Your task to perform on an android device: Play the last video I watched on Youtube Image 0: 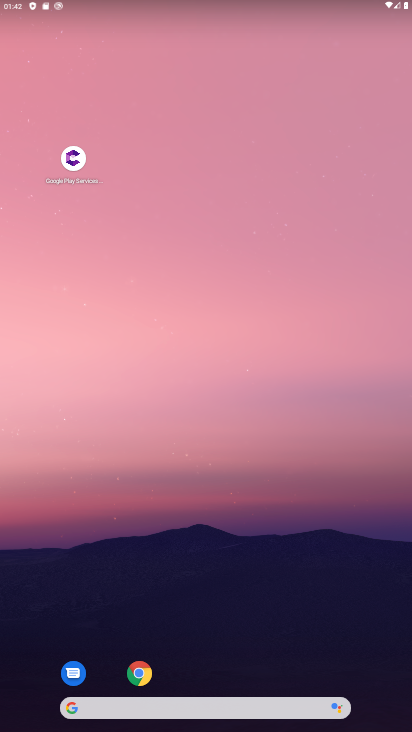
Step 0: drag from (223, 599) to (223, 135)
Your task to perform on an android device: Play the last video I watched on Youtube Image 1: 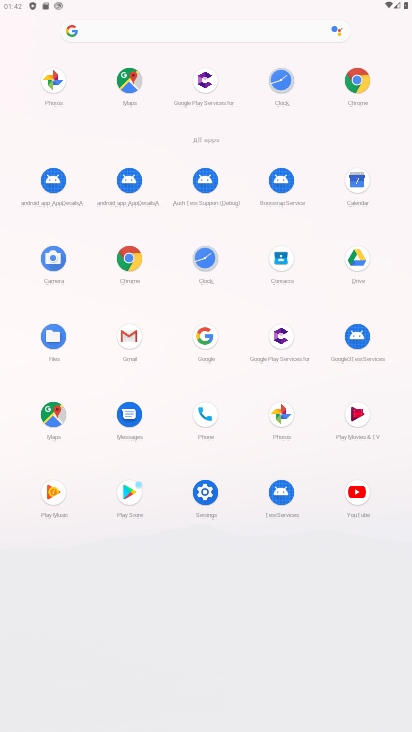
Step 1: click (347, 502)
Your task to perform on an android device: Play the last video I watched on Youtube Image 2: 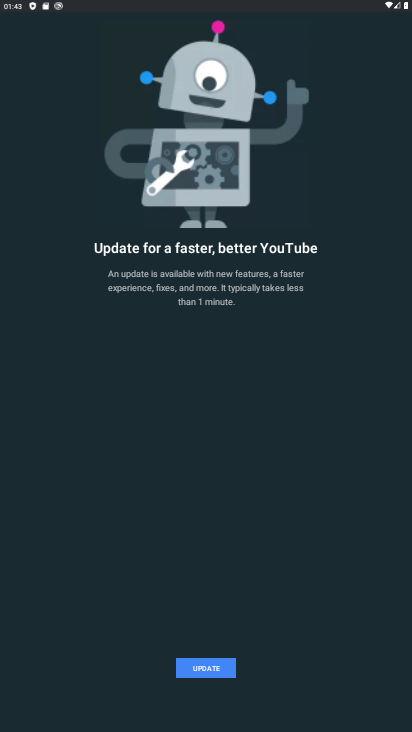
Step 2: click (201, 674)
Your task to perform on an android device: Play the last video I watched on Youtube Image 3: 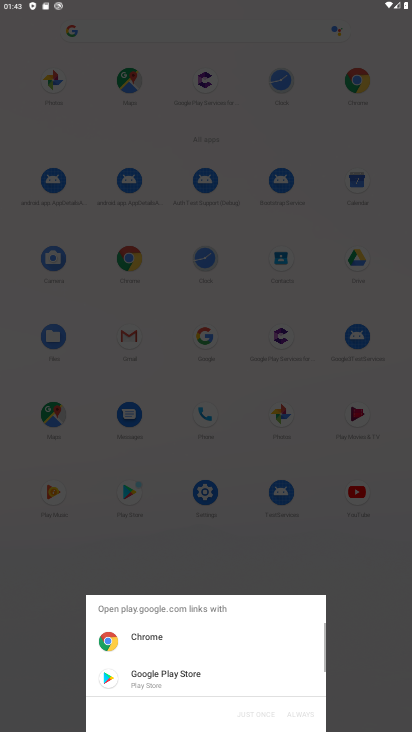
Step 3: click (149, 661)
Your task to perform on an android device: Play the last video I watched on Youtube Image 4: 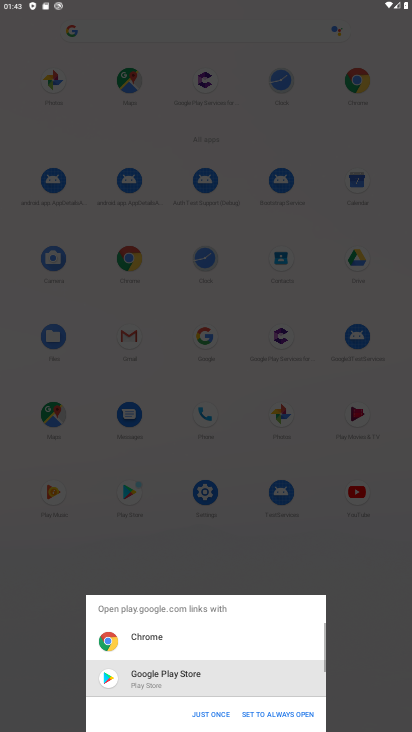
Step 4: click (211, 716)
Your task to perform on an android device: Play the last video I watched on Youtube Image 5: 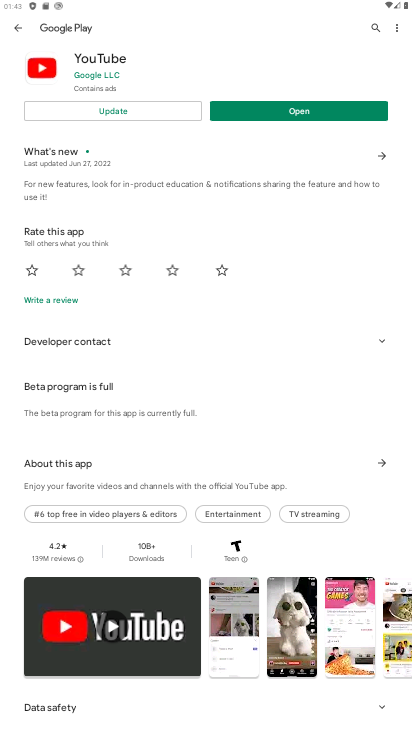
Step 5: click (143, 113)
Your task to perform on an android device: Play the last video I watched on Youtube Image 6: 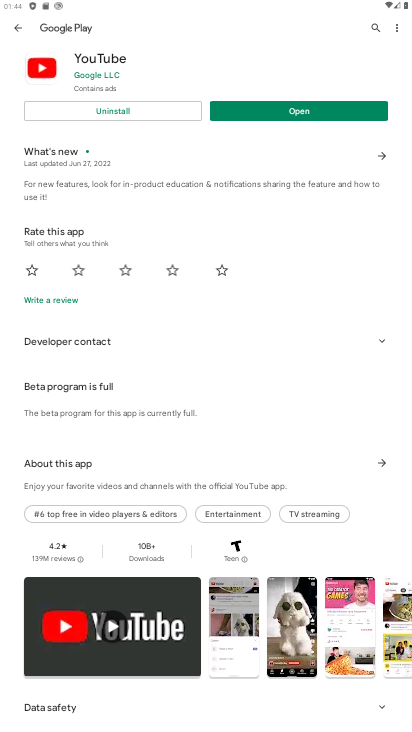
Step 6: click (270, 117)
Your task to perform on an android device: Play the last video I watched on Youtube Image 7: 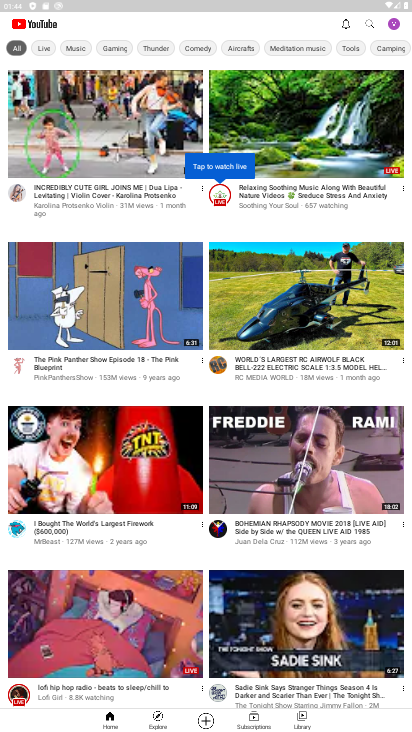
Step 7: click (389, 24)
Your task to perform on an android device: Play the last video I watched on Youtube Image 8: 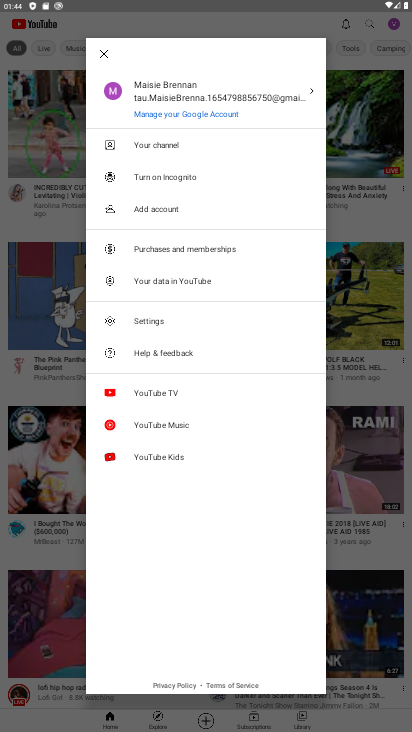
Step 8: click (362, 709)
Your task to perform on an android device: Play the last video I watched on Youtube Image 9: 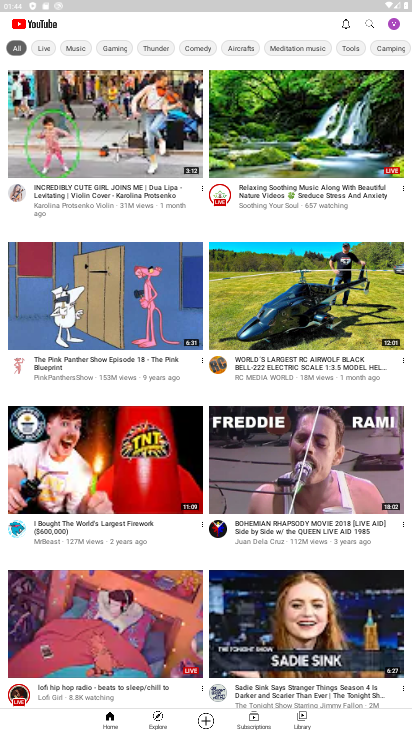
Step 9: click (302, 716)
Your task to perform on an android device: Play the last video I watched on Youtube Image 10: 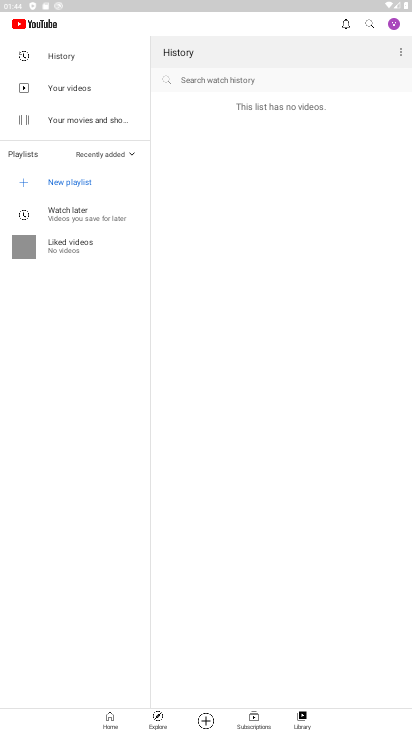
Step 10: click (63, 59)
Your task to perform on an android device: Play the last video I watched on Youtube Image 11: 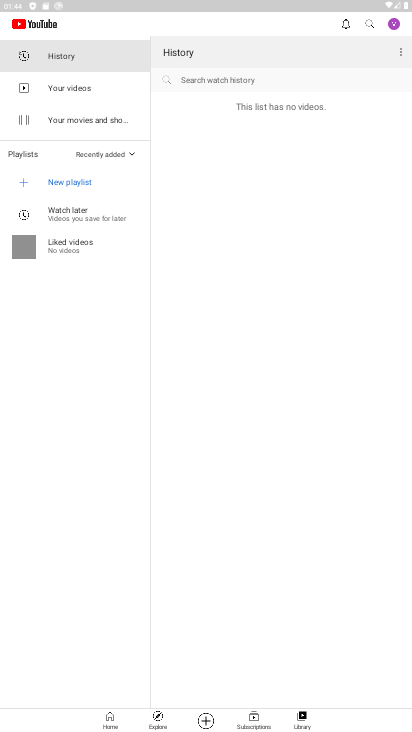
Step 11: task complete